Your task to perform on an android device: How much does the LG TV cost? Image 0: 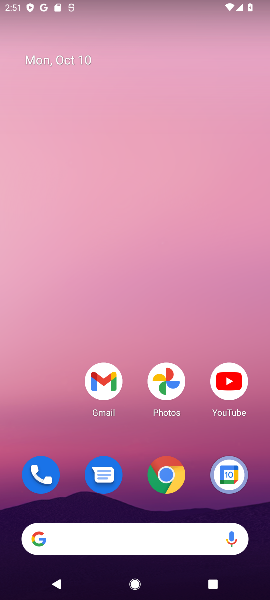
Step 0: drag from (152, 484) to (170, 54)
Your task to perform on an android device: How much does the LG TV cost? Image 1: 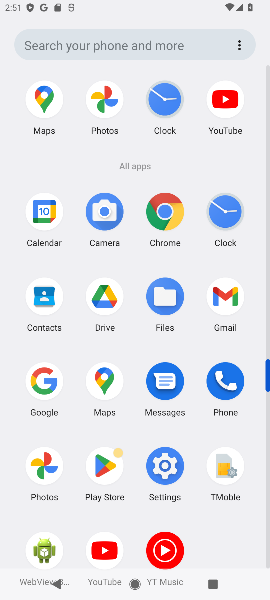
Step 1: click (48, 384)
Your task to perform on an android device: How much does the LG TV cost? Image 2: 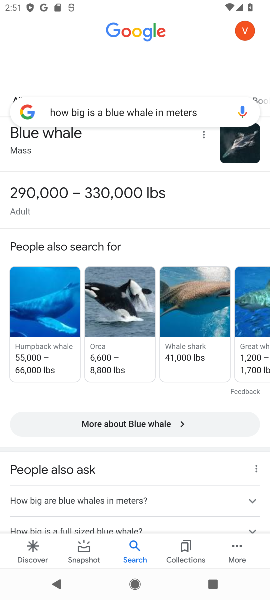
Step 2: click (211, 105)
Your task to perform on an android device: How much does the LG TV cost? Image 3: 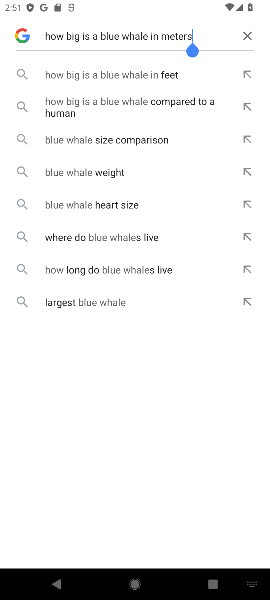
Step 3: click (251, 39)
Your task to perform on an android device: How much does the LG TV cost? Image 4: 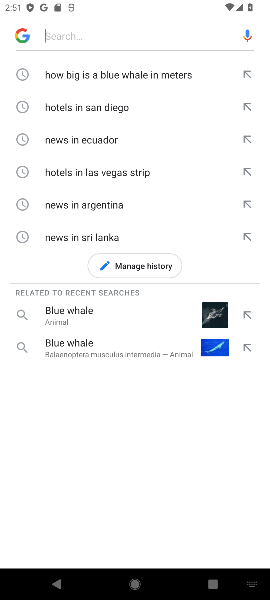
Step 4: type "LG TV cost"
Your task to perform on an android device: How much does the LG TV cost? Image 5: 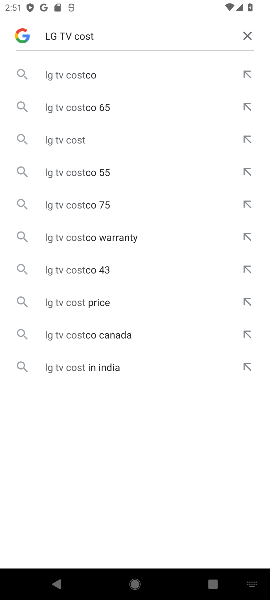
Step 5: click (84, 73)
Your task to perform on an android device: How much does the LG TV cost? Image 6: 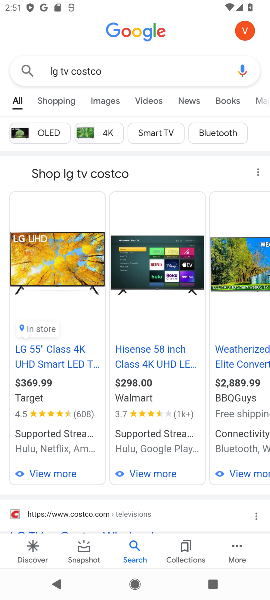
Step 6: task complete